Your task to perform on an android device: Is it going to rain tomorrow? Image 0: 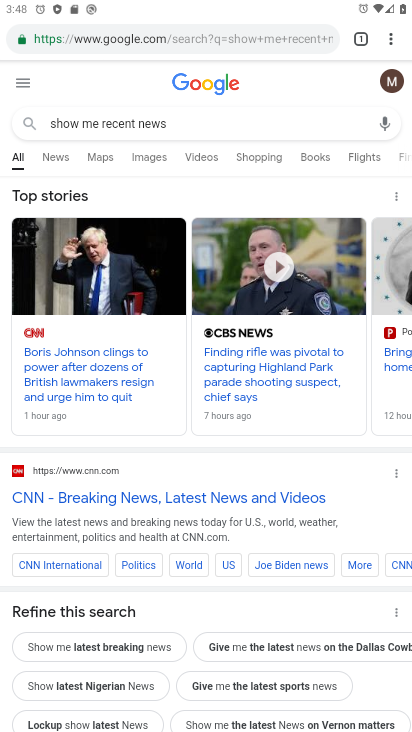
Step 0: press home button
Your task to perform on an android device: Is it going to rain tomorrow? Image 1: 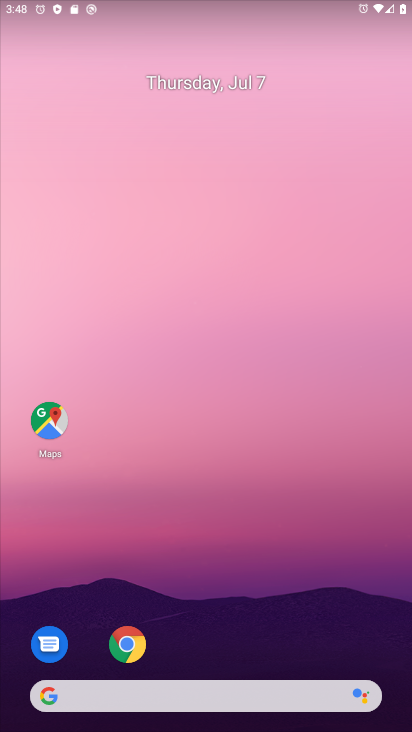
Step 1: click (130, 638)
Your task to perform on an android device: Is it going to rain tomorrow? Image 2: 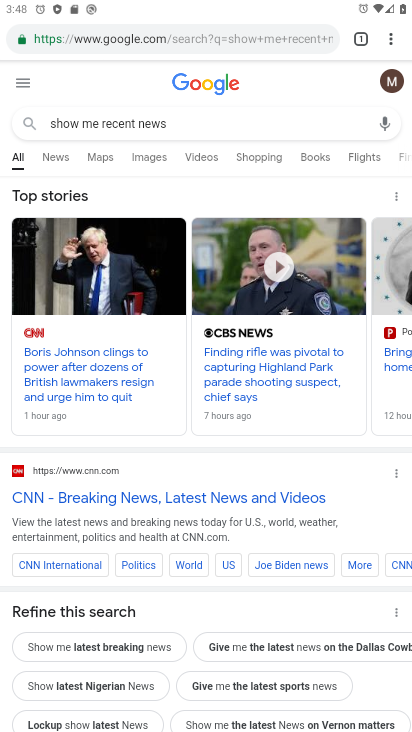
Step 2: click (168, 20)
Your task to perform on an android device: Is it going to rain tomorrow? Image 3: 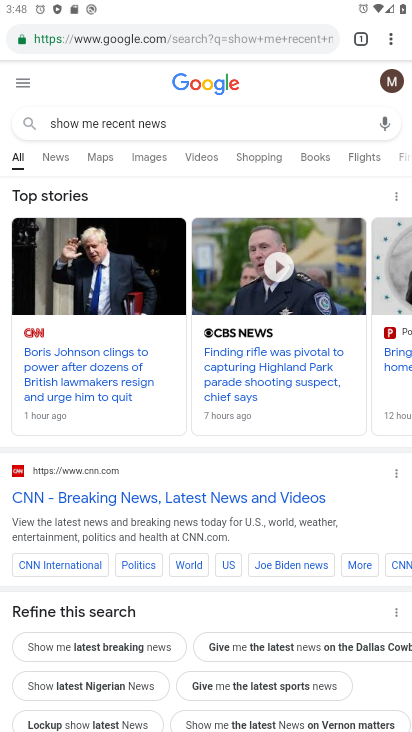
Step 3: click (173, 30)
Your task to perform on an android device: Is it going to rain tomorrow? Image 4: 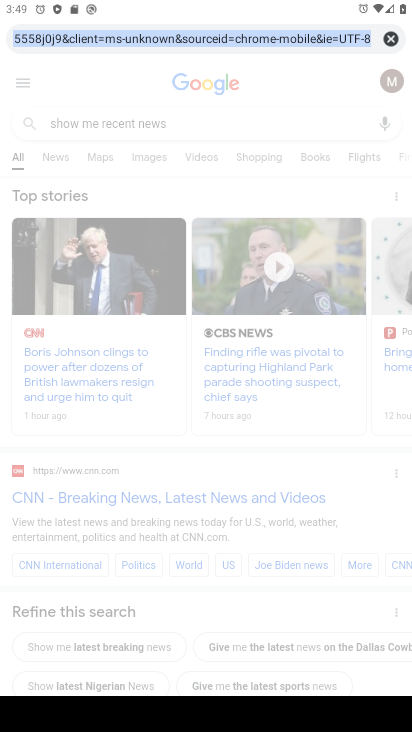
Step 4: type "is it going to rain tomorrow?"
Your task to perform on an android device: Is it going to rain tomorrow? Image 5: 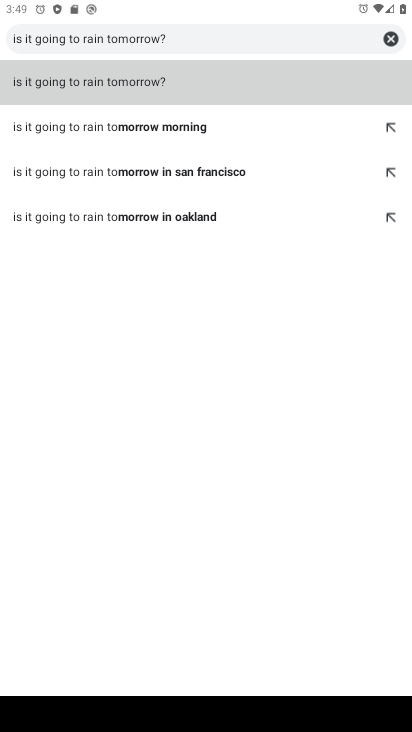
Step 5: click (274, 68)
Your task to perform on an android device: Is it going to rain tomorrow? Image 6: 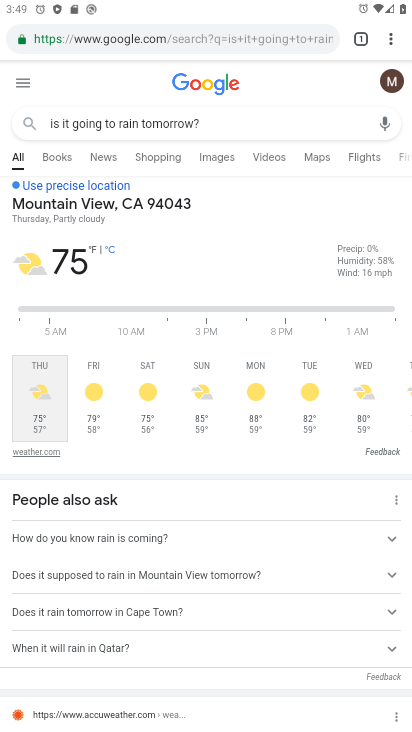
Step 6: task complete